Your task to perform on an android device: Open ESPN.com Image 0: 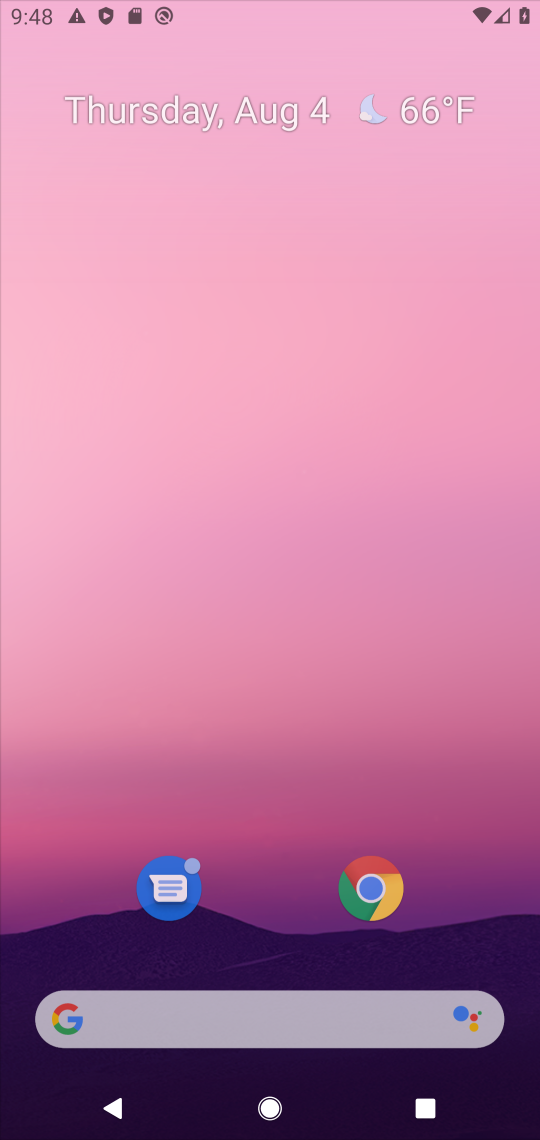
Step 0: press home button
Your task to perform on an android device: Open ESPN.com Image 1: 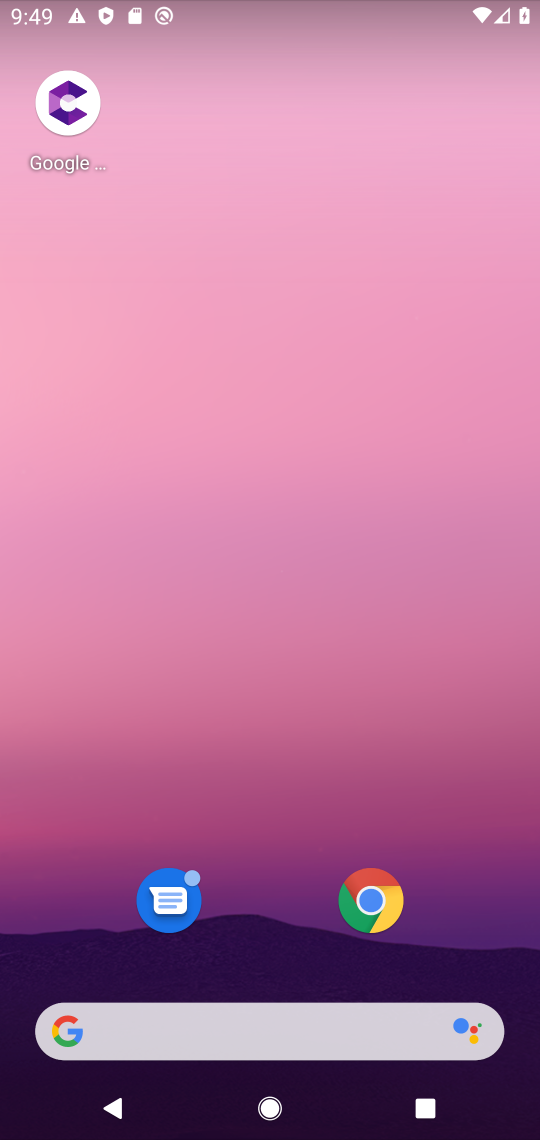
Step 1: click (386, 890)
Your task to perform on an android device: Open ESPN.com Image 2: 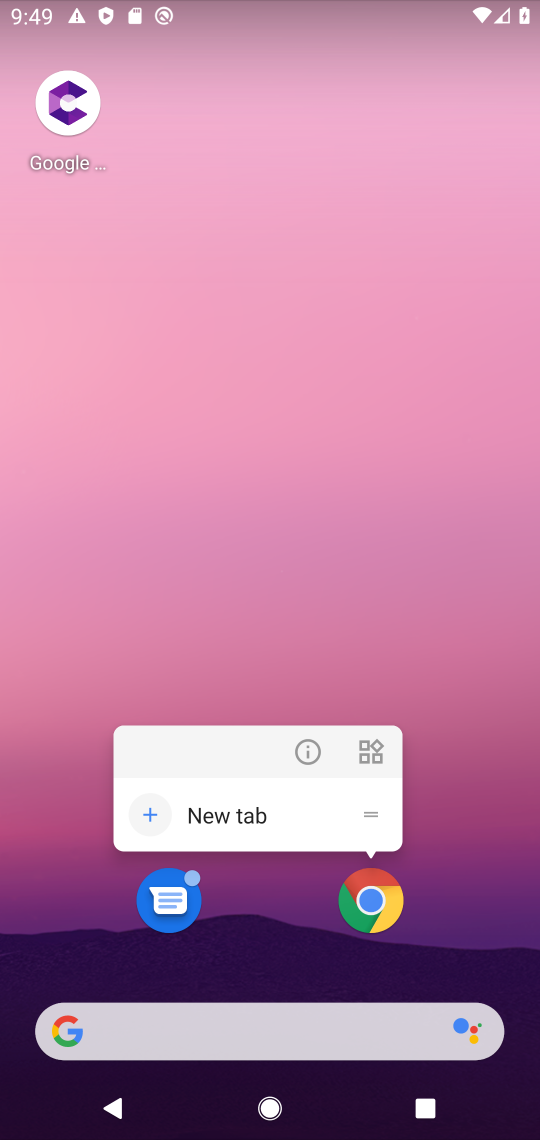
Step 2: click (371, 901)
Your task to perform on an android device: Open ESPN.com Image 3: 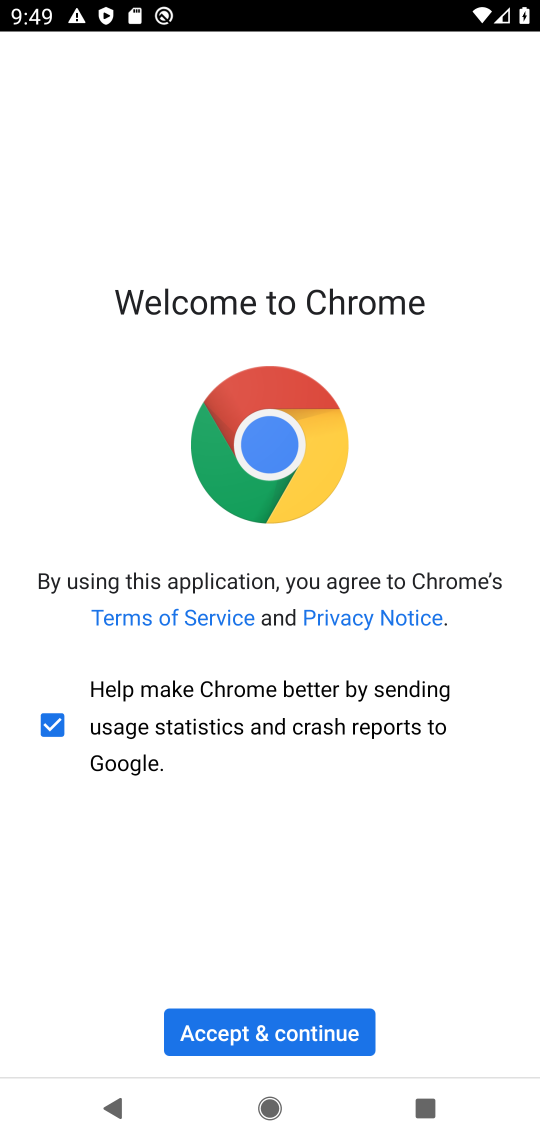
Step 3: click (272, 1026)
Your task to perform on an android device: Open ESPN.com Image 4: 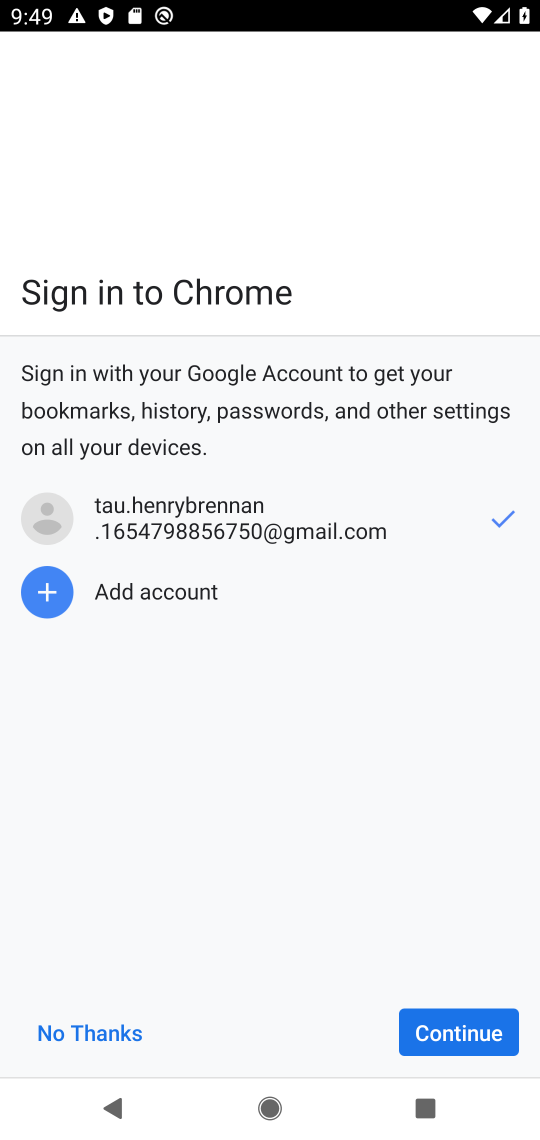
Step 4: click (516, 1041)
Your task to perform on an android device: Open ESPN.com Image 5: 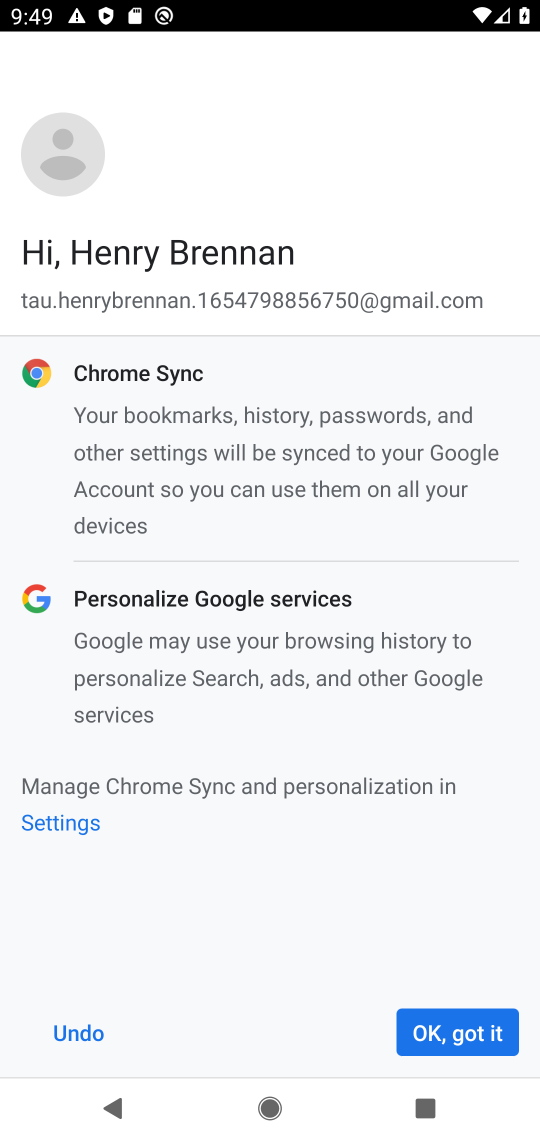
Step 5: click (478, 1047)
Your task to perform on an android device: Open ESPN.com Image 6: 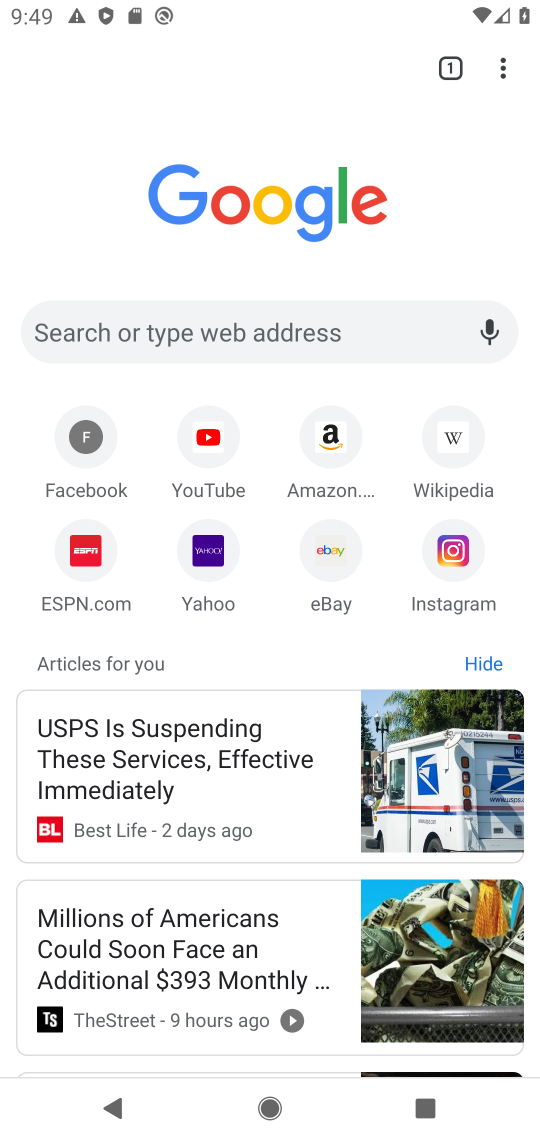
Step 6: click (101, 577)
Your task to perform on an android device: Open ESPN.com Image 7: 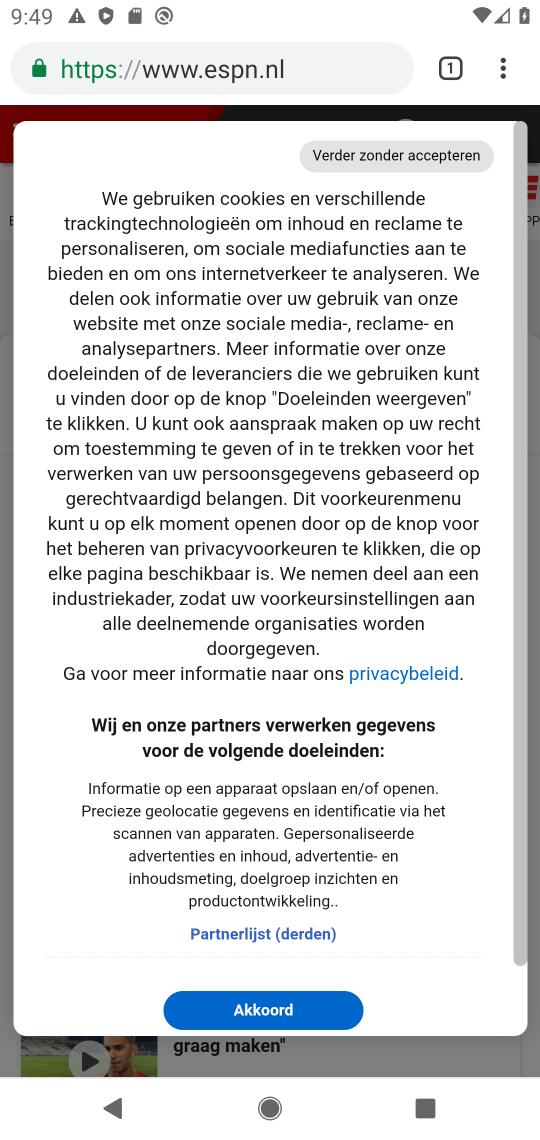
Step 7: task complete